Your task to perform on an android device: empty trash in the gmail app Image 0: 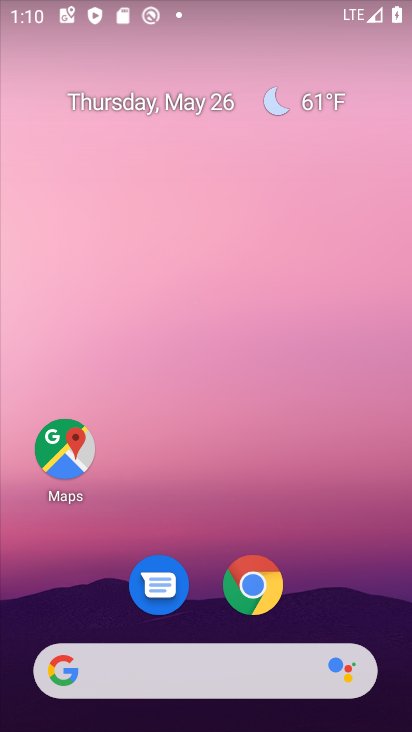
Step 0: drag from (235, 485) to (272, 90)
Your task to perform on an android device: empty trash in the gmail app Image 1: 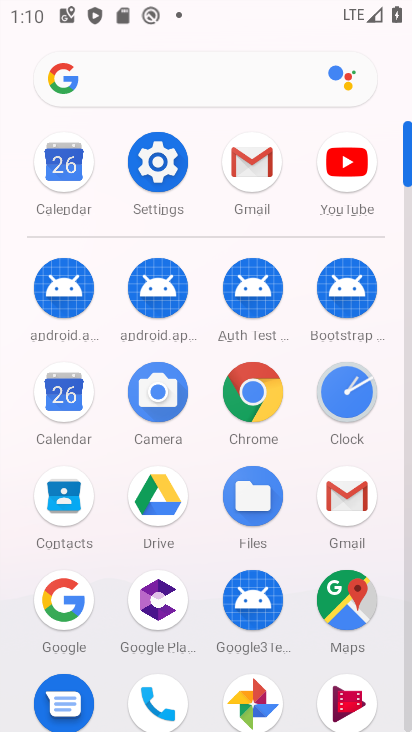
Step 1: click (263, 168)
Your task to perform on an android device: empty trash in the gmail app Image 2: 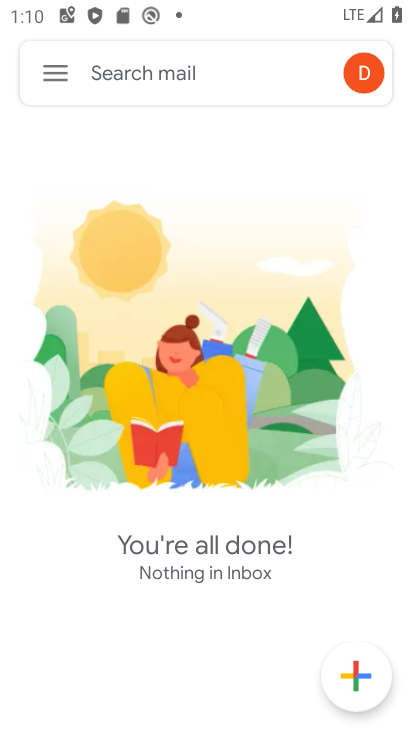
Step 2: click (56, 70)
Your task to perform on an android device: empty trash in the gmail app Image 3: 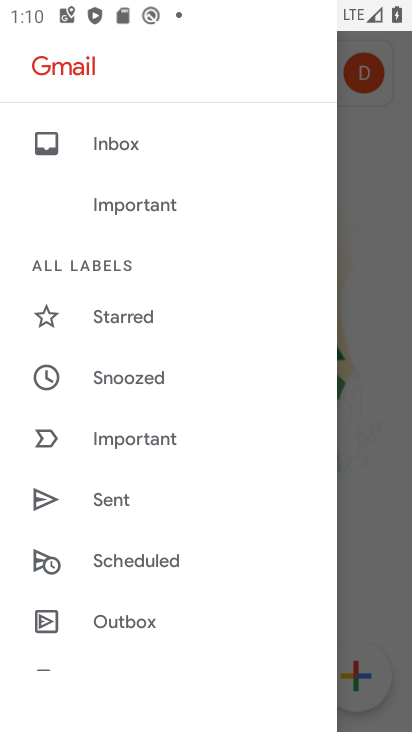
Step 3: drag from (196, 493) to (207, 111)
Your task to perform on an android device: empty trash in the gmail app Image 4: 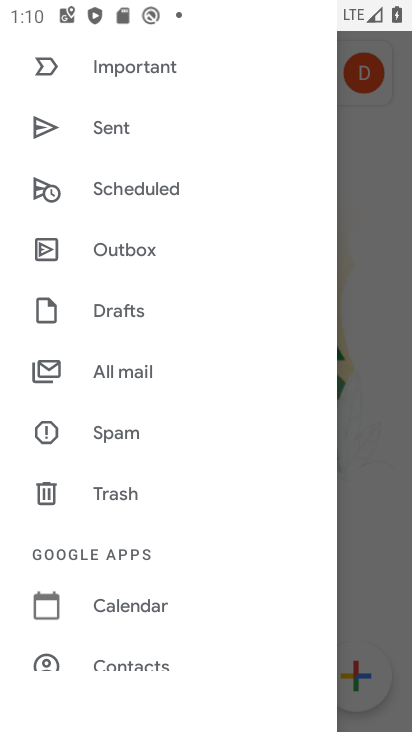
Step 4: click (117, 493)
Your task to perform on an android device: empty trash in the gmail app Image 5: 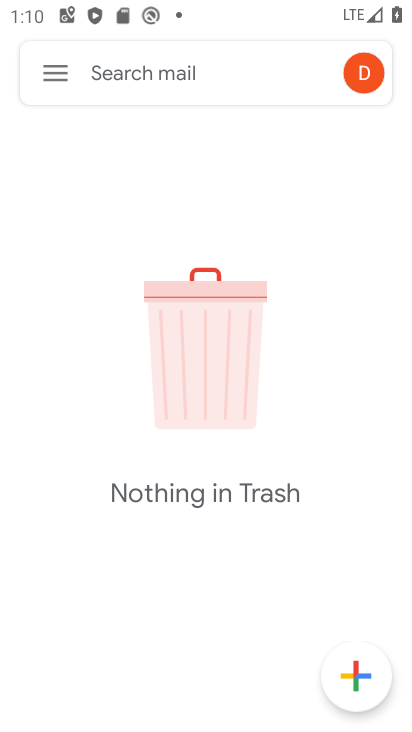
Step 5: task complete